Your task to perform on an android device: turn off airplane mode Image 0: 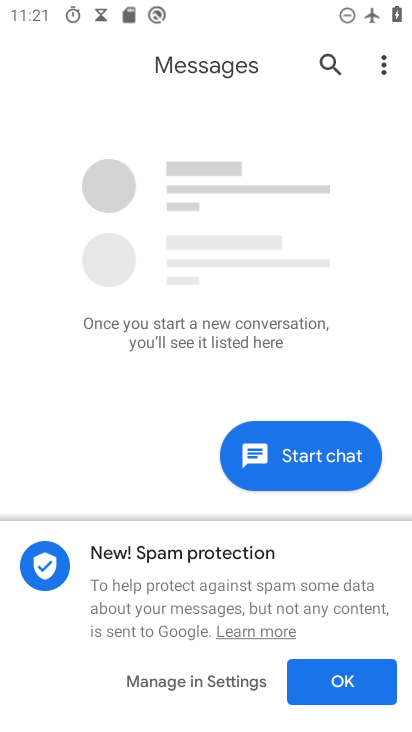
Step 0: press home button
Your task to perform on an android device: turn off airplane mode Image 1: 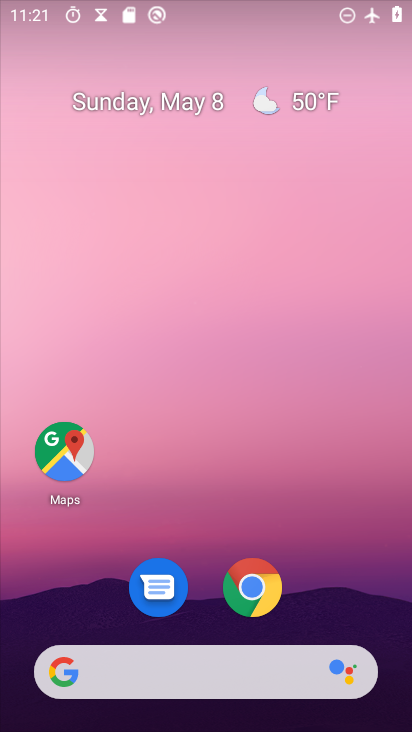
Step 1: drag from (323, 539) to (240, 199)
Your task to perform on an android device: turn off airplane mode Image 2: 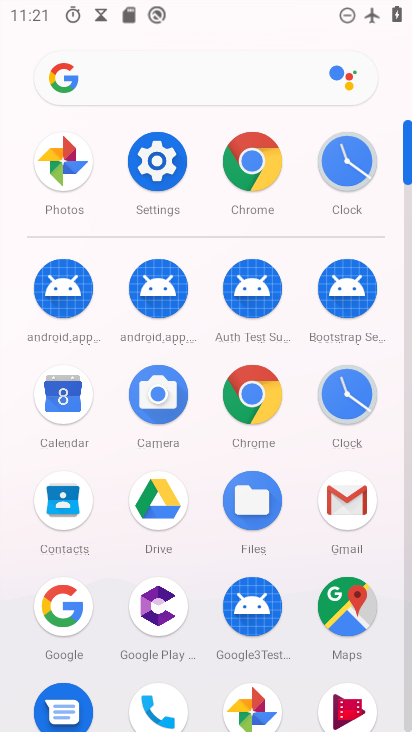
Step 2: click (151, 163)
Your task to perform on an android device: turn off airplane mode Image 3: 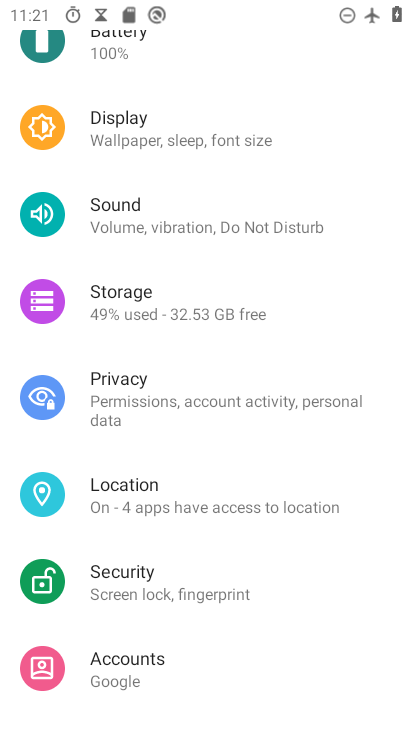
Step 3: drag from (151, 163) to (132, 654)
Your task to perform on an android device: turn off airplane mode Image 4: 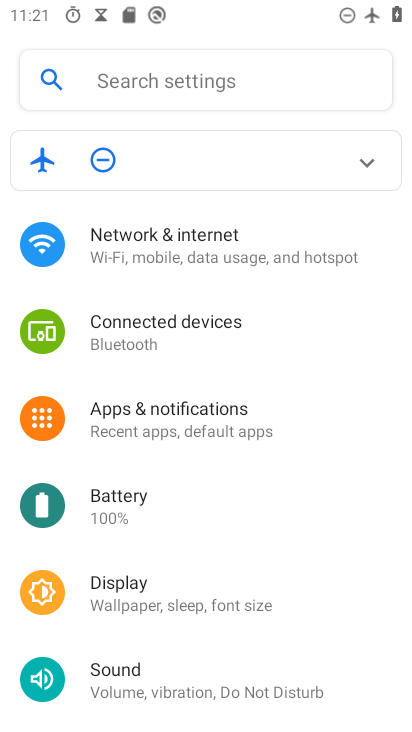
Step 4: click (161, 261)
Your task to perform on an android device: turn off airplane mode Image 5: 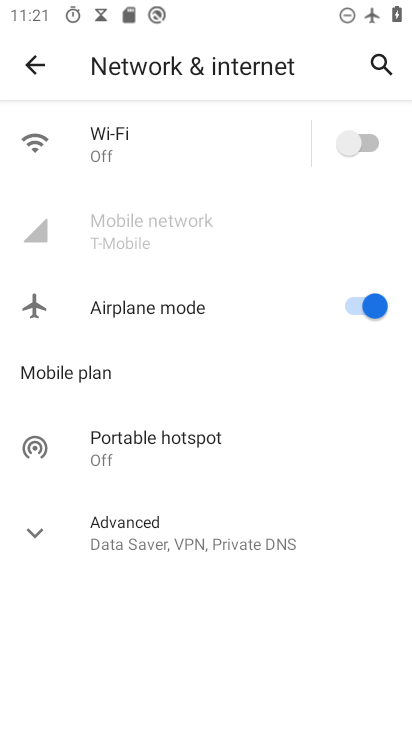
Step 5: click (373, 304)
Your task to perform on an android device: turn off airplane mode Image 6: 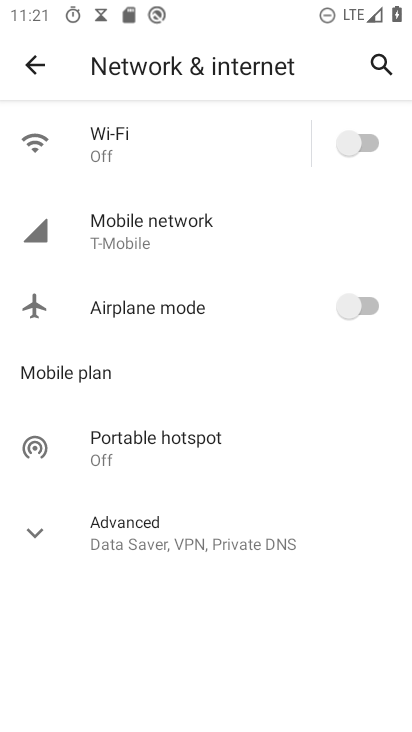
Step 6: task complete